Your task to perform on an android device: Go to Google Image 0: 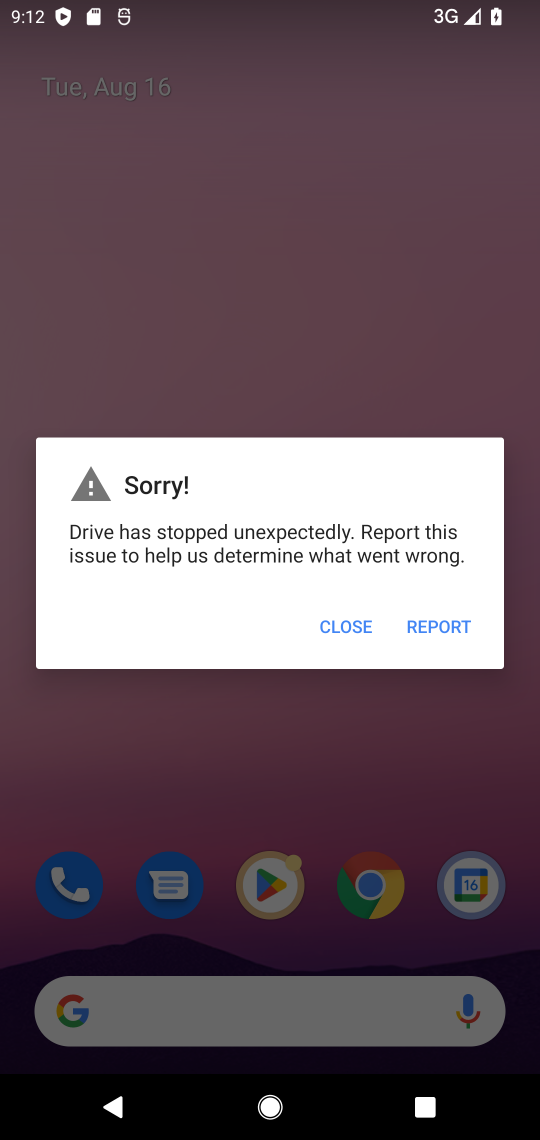
Step 0: click (313, 638)
Your task to perform on an android device: Go to Google Image 1: 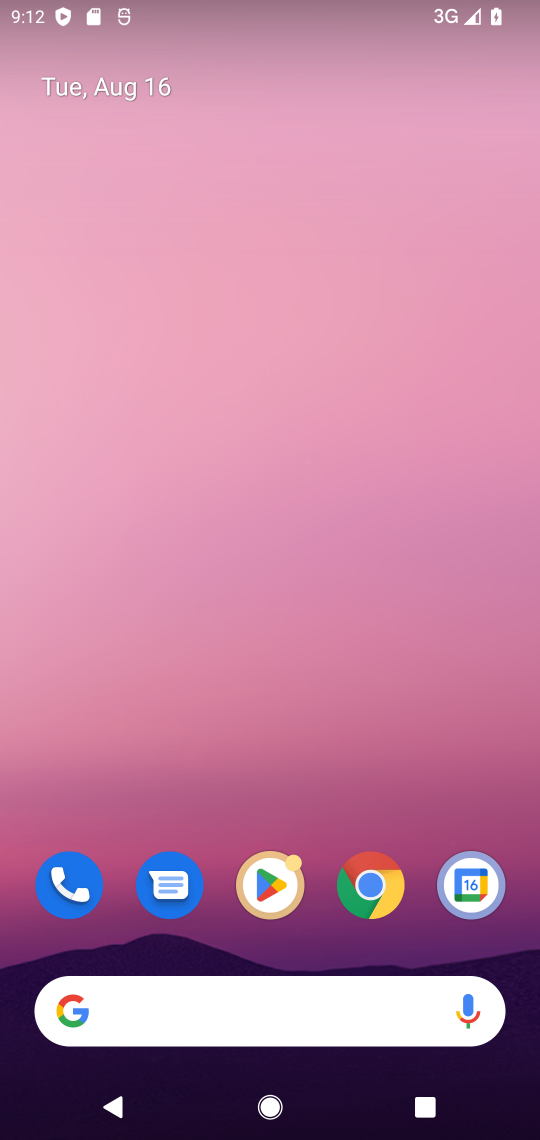
Step 1: click (239, 1009)
Your task to perform on an android device: Go to Google Image 2: 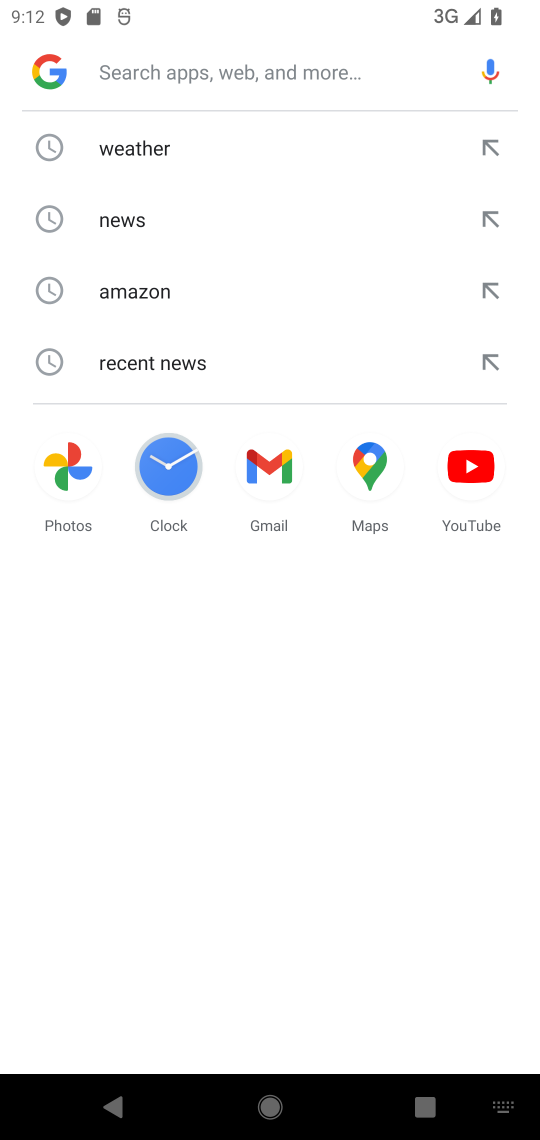
Step 2: task complete